Your task to perform on an android device: Open Google Image 0: 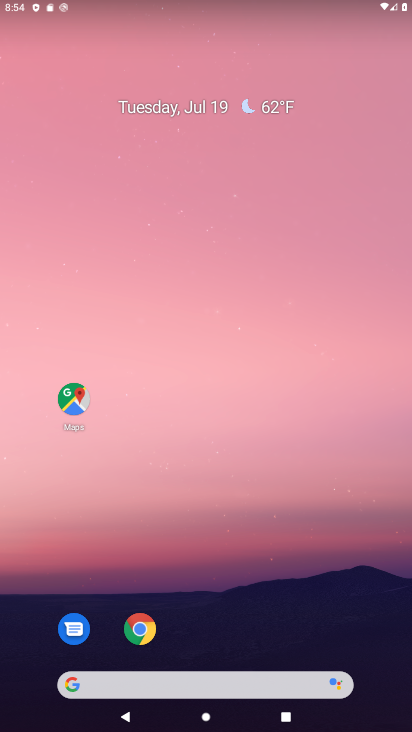
Step 0: press home button
Your task to perform on an android device: Open Google Image 1: 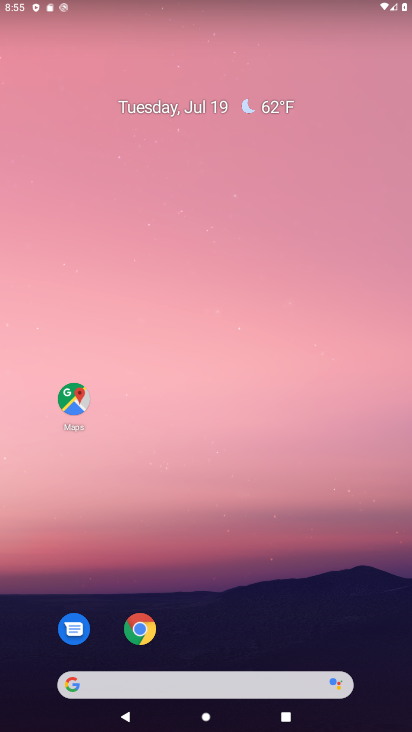
Step 1: drag from (202, 655) to (175, 3)
Your task to perform on an android device: Open Google Image 2: 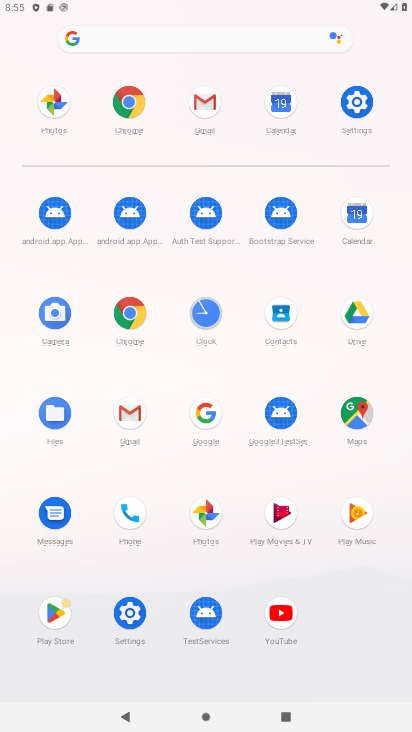
Step 2: click (204, 404)
Your task to perform on an android device: Open Google Image 3: 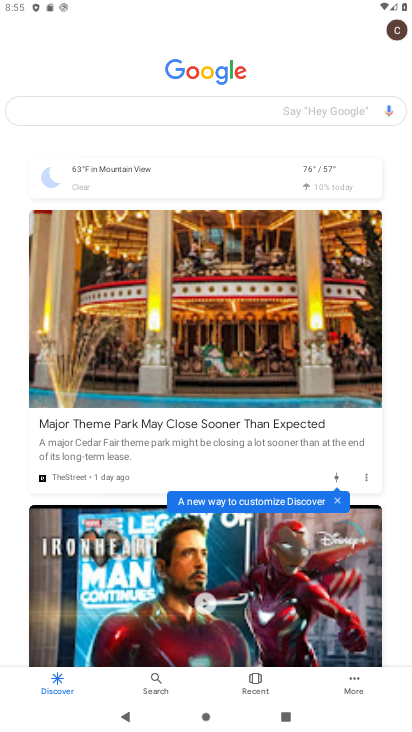
Step 3: task complete